Your task to perform on an android device: What's the weather? Image 0: 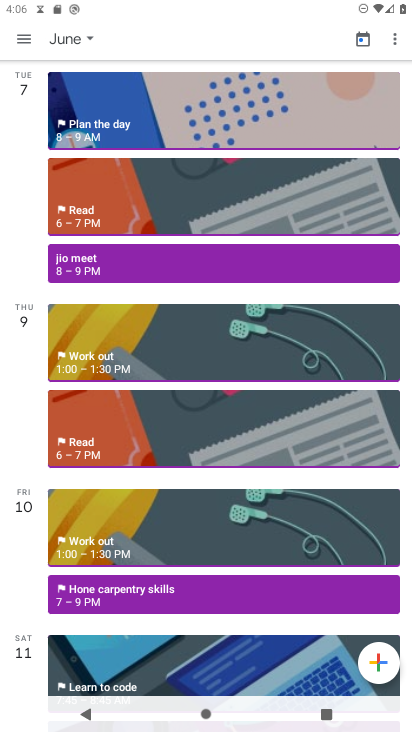
Step 0: press home button
Your task to perform on an android device: What's the weather? Image 1: 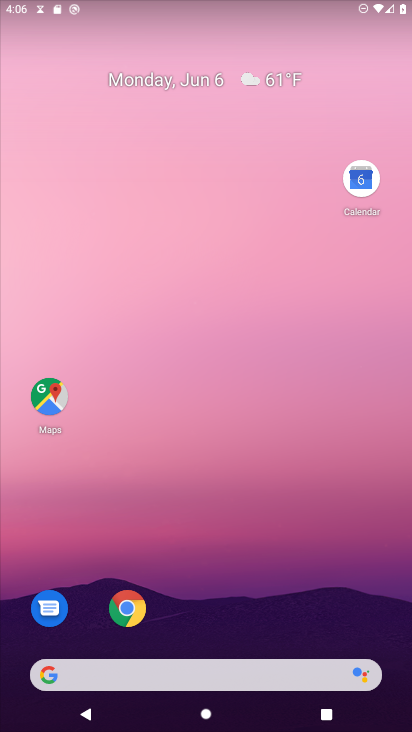
Step 1: click (155, 680)
Your task to perform on an android device: What's the weather? Image 2: 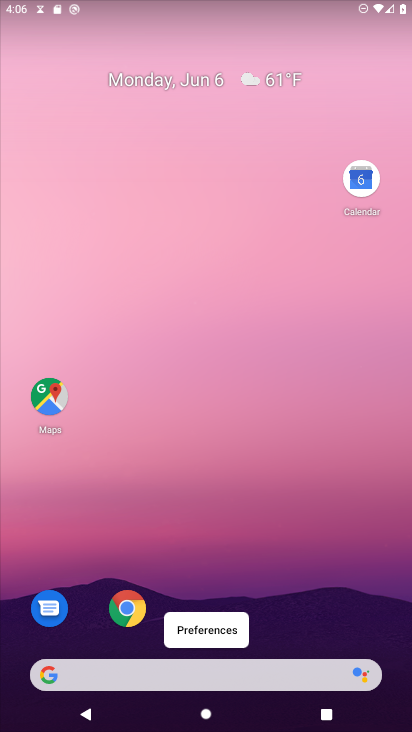
Step 2: click (248, 669)
Your task to perform on an android device: What's the weather? Image 3: 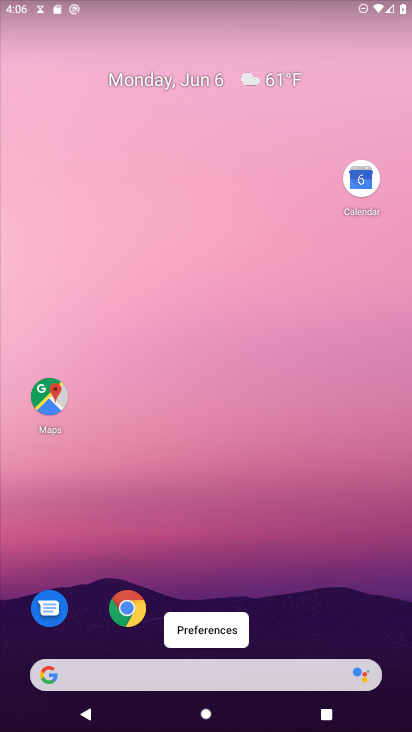
Step 3: click (83, 666)
Your task to perform on an android device: What's the weather? Image 4: 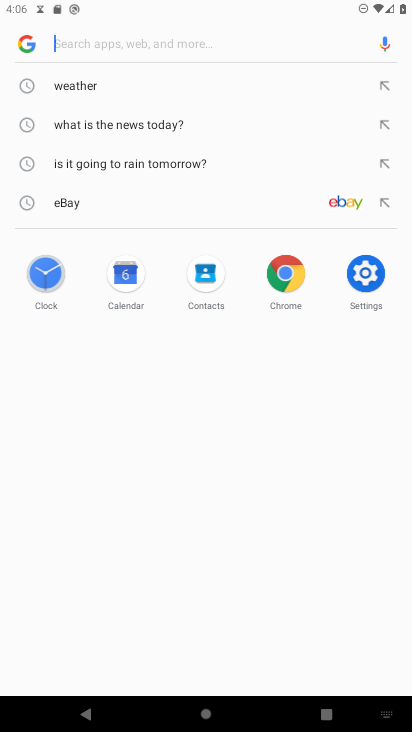
Step 4: type "what's the weather "
Your task to perform on an android device: What's the weather? Image 5: 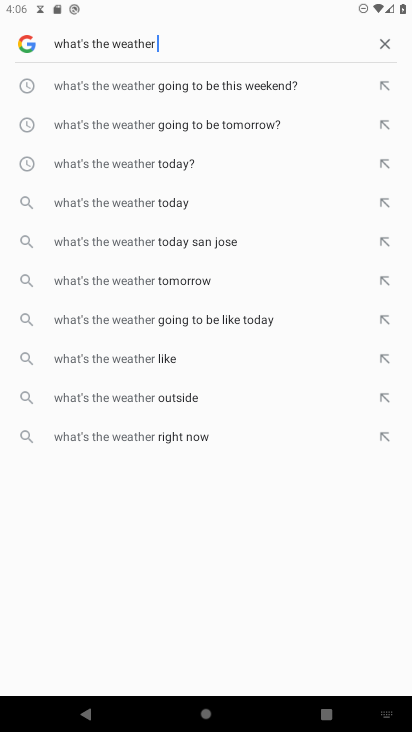
Step 5: click (139, 175)
Your task to perform on an android device: What's the weather? Image 6: 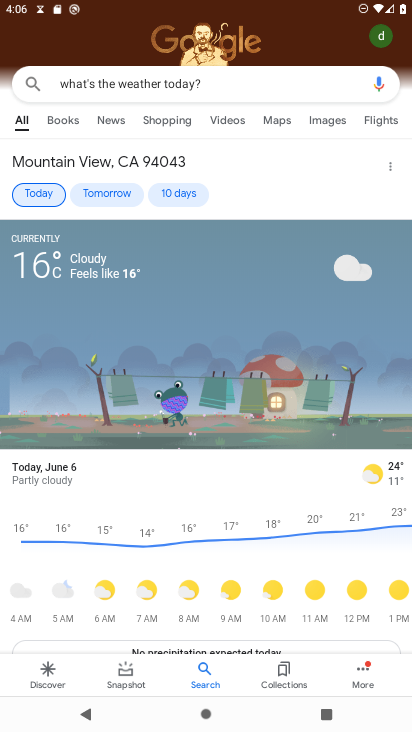
Step 6: task complete